Your task to perform on an android device: turn on improve location accuracy Image 0: 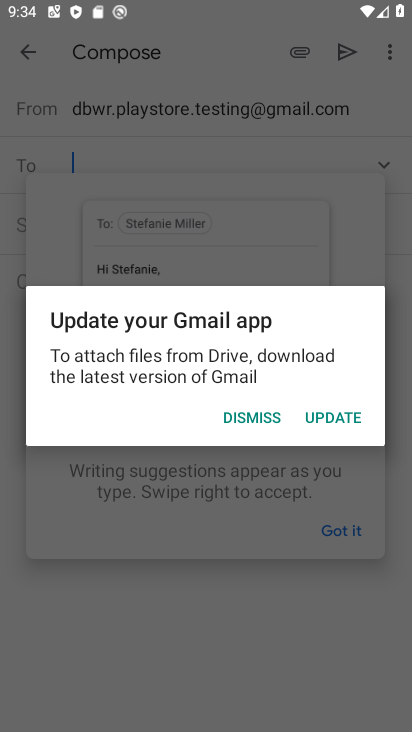
Step 0: press home button
Your task to perform on an android device: turn on improve location accuracy Image 1: 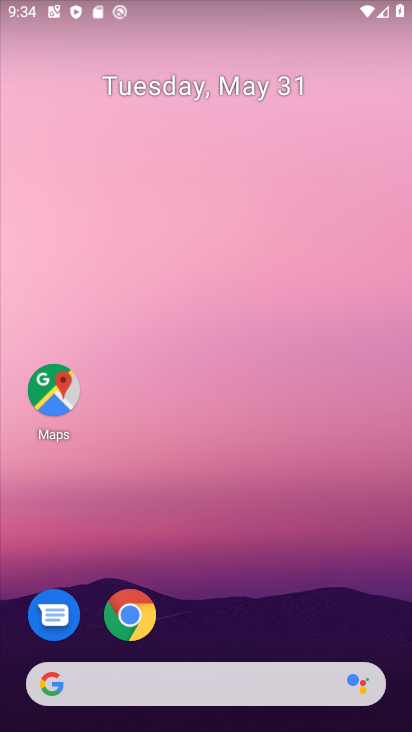
Step 1: drag from (237, 632) to (239, 0)
Your task to perform on an android device: turn on improve location accuracy Image 2: 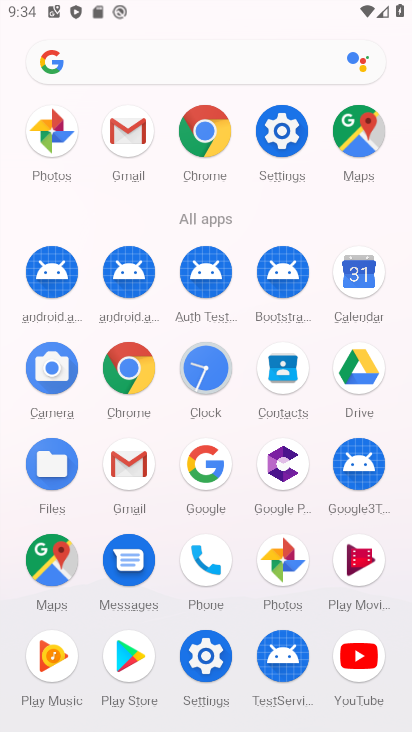
Step 2: click (207, 652)
Your task to perform on an android device: turn on improve location accuracy Image 3: 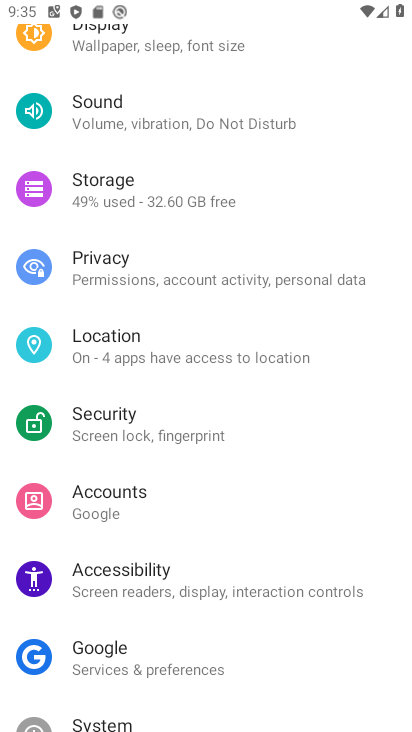
Step 3: click (72, 353)
Your task to perform on an android device: turn on improve location accuracy Image 4: 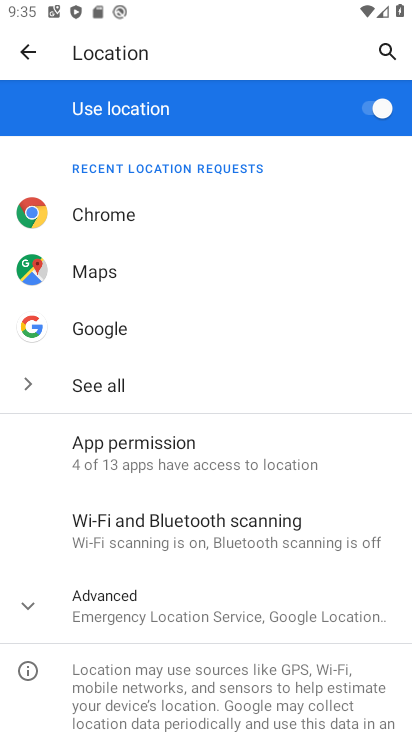
Step 4: click (126, 611)
Your task to perform on an android device: turn on improve location accuracy Image 5: 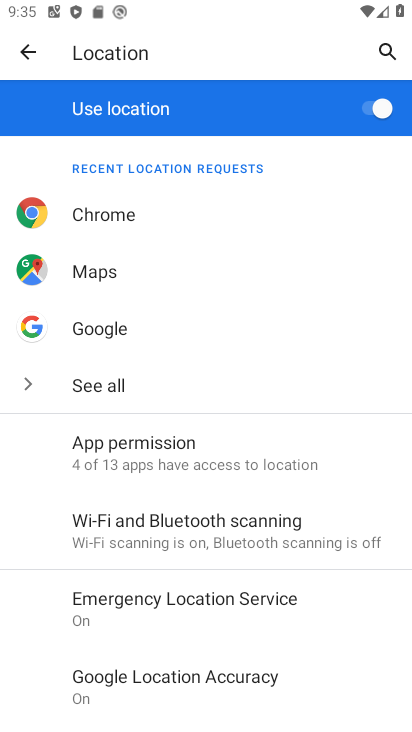
Step 5: click (177, 683)
Your task to perform on an android device: turn on improve location accuracy Image 6: 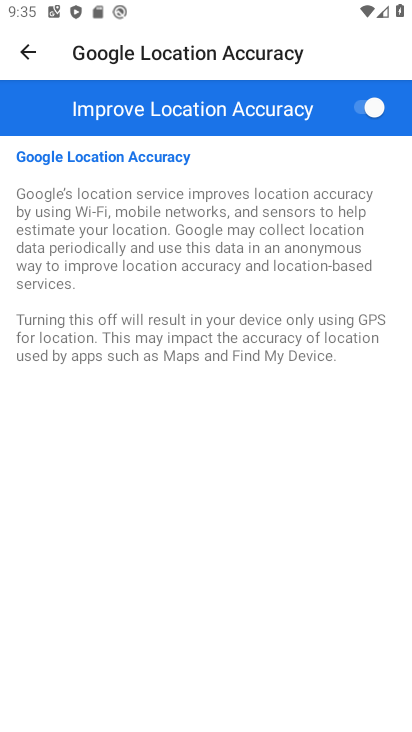
Step 6: task complete